Your task to perform on an android device: Open Google Chrome Image 0: 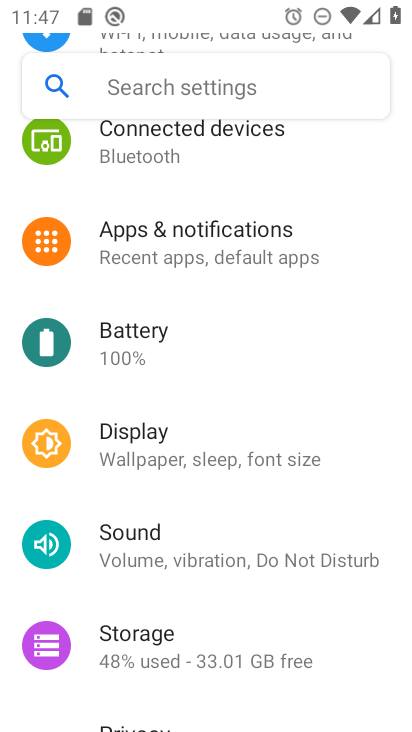
Step 0: press home button
Your task to perform on an android device: Open Google Chrome Image 1: 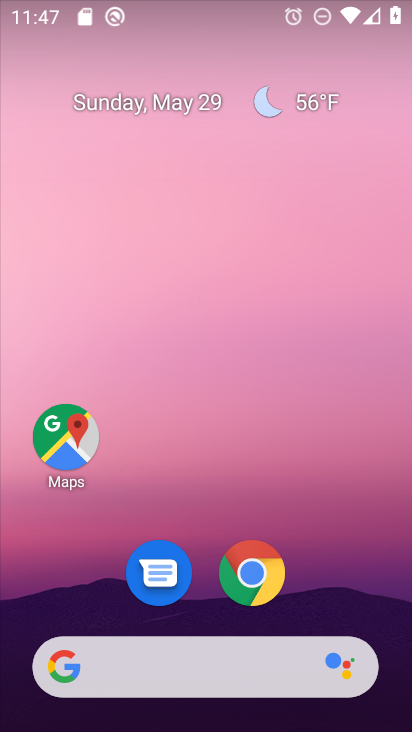
Step 1: drag from (163, 599) to (179, 95)
Your task to perform on an android device: Open Google Chrome Image 2: 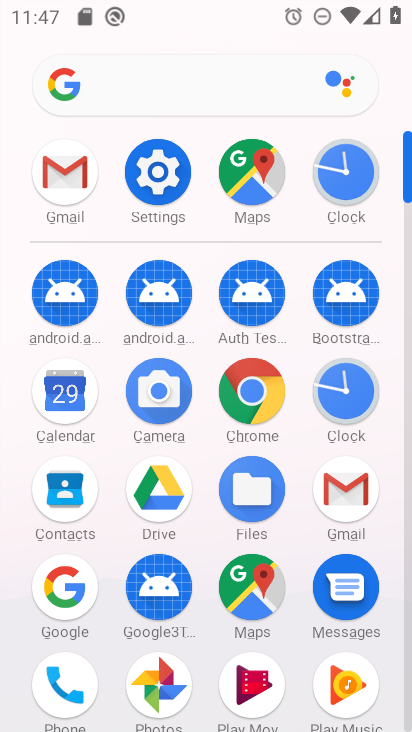
Step 2: click (278, 393)
Your task to perform on an android device: Open Google Chrome Image 3: 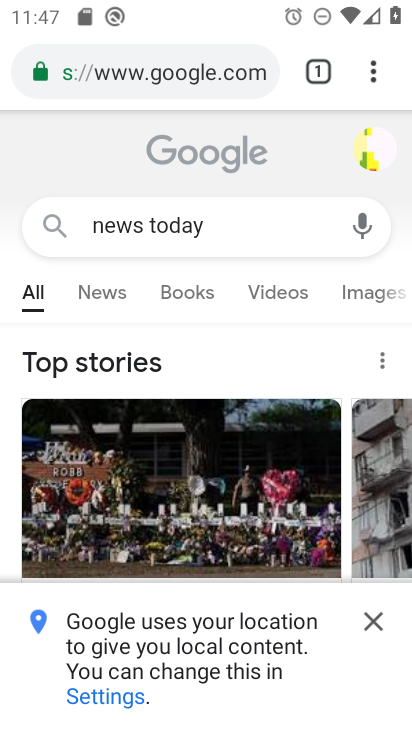
Step 3: task complete